Your task to perform on an android device: When is my next meeting? Image 0: 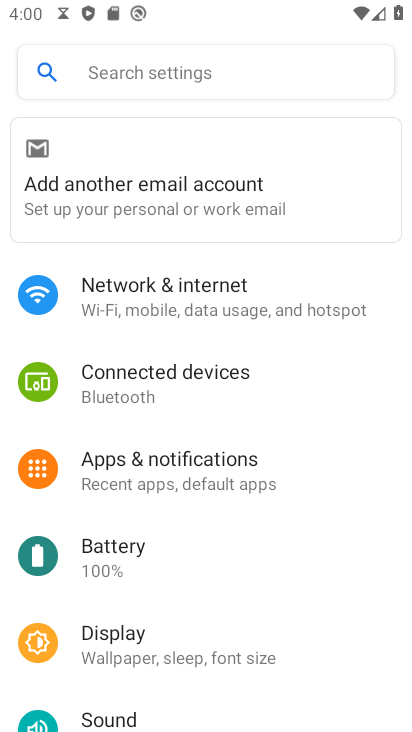
Step 0: press home button
Your task to perform on an android device: When is my next meeting? Image 1: 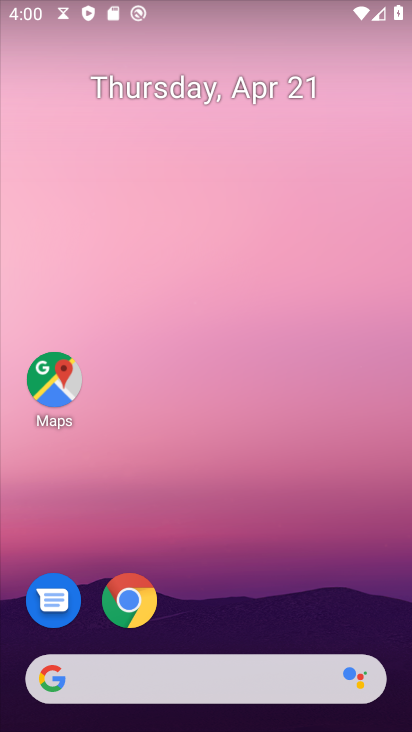
Step 1: drag from (209, 569) to (199, 83)
Your task to perform on an android device: When is my next meeting? Image 2: 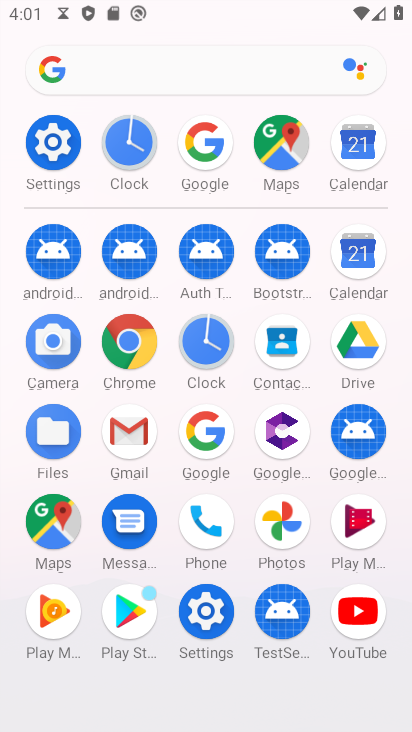
Step 2: click (357, 148)
Your task to perform on an android device: When is my next meeting? Image 3: 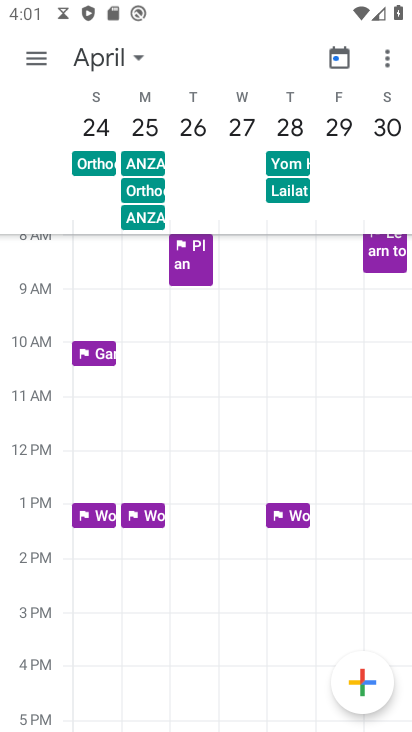
Step 3: click (342, 63)
Your task to perform on an android device: When is my next meeting? Image 4: 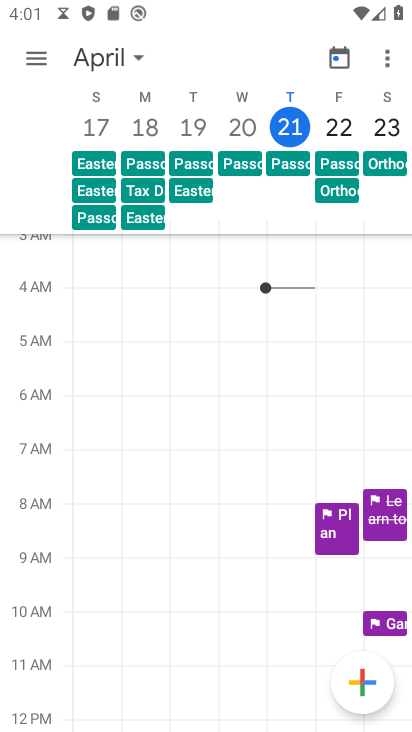
Step 4: click (132, 59)
Your task to perform on an android device: When is my next meeting? Image 5: 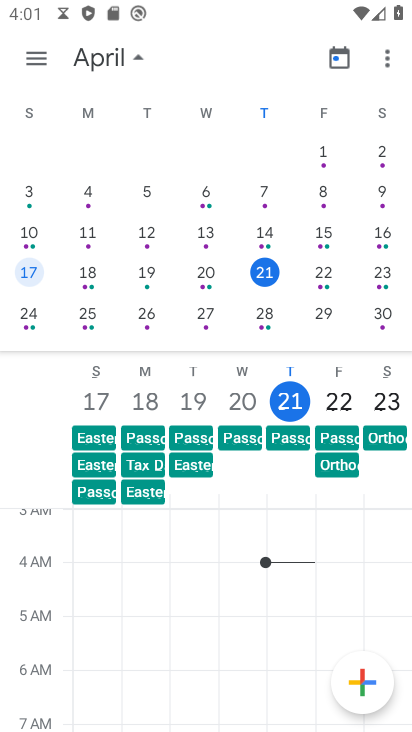
Step 5: click (88, 319)
Your task to perform on an android device: When is my next meeting? Image 6: 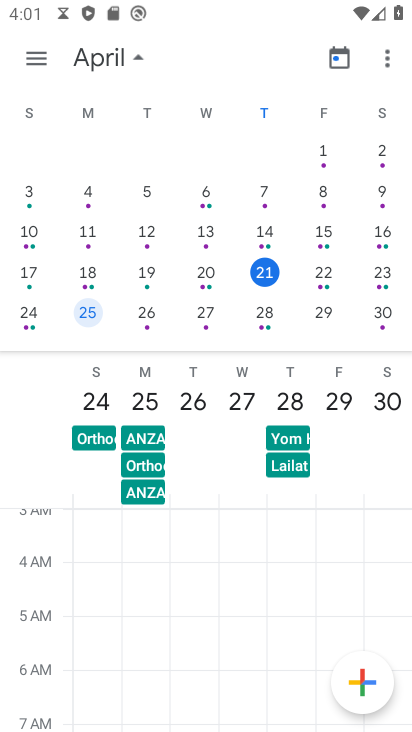
Step 6: click (28, 49)
Your task to perform on an android device: When is my next meeting? Image 7: 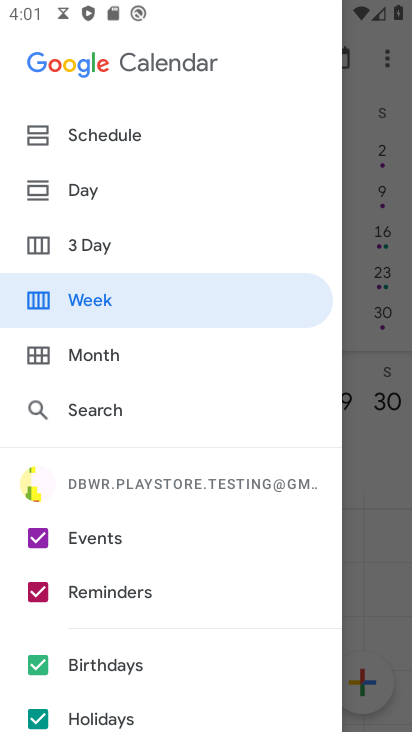
Step 7: click (129, 295)
Your task to perform on an android device: When is my next meeting? Image 8: 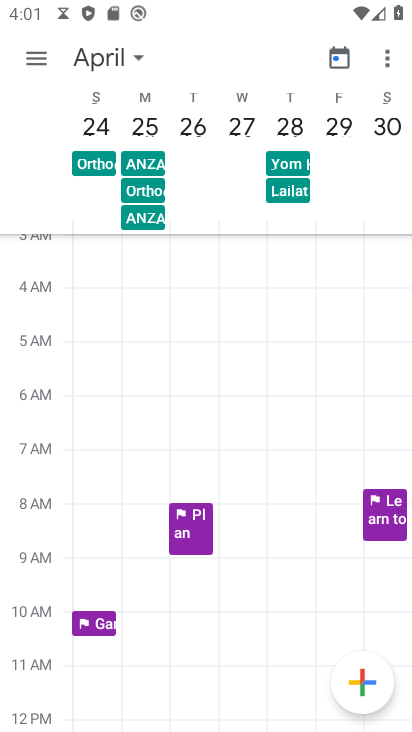
Step 8: task complete